Your task to perform on an android device: Open Chrome and go to settings Image 0: 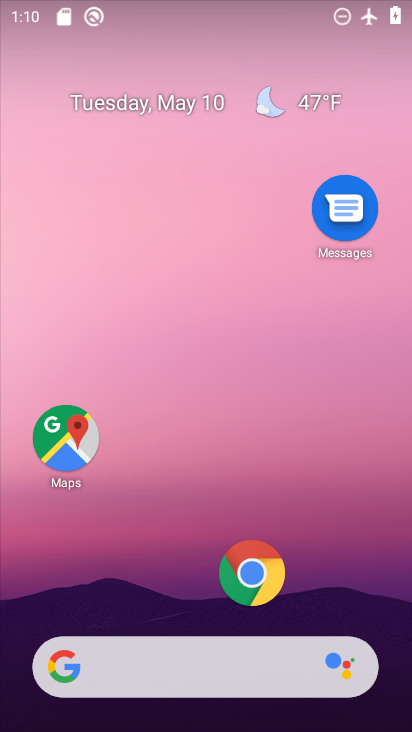
Step 0: click (226, 315)
Your task to perform on an android device: Open Chrome and go to settings Image 1: 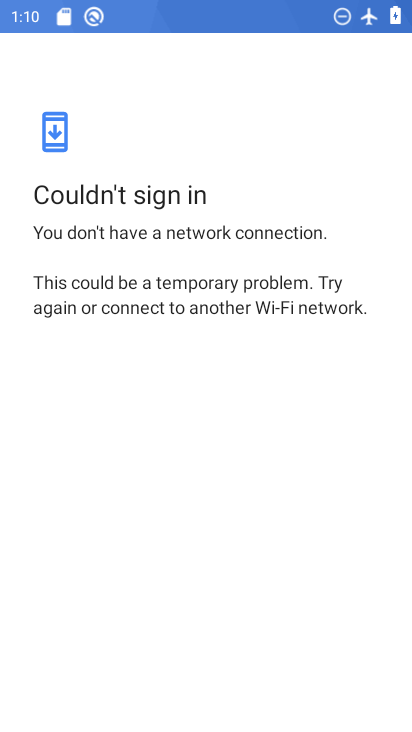
Step 1: press home button
Your task to perform on an android device: Open Chrome and go to settings Image 2: 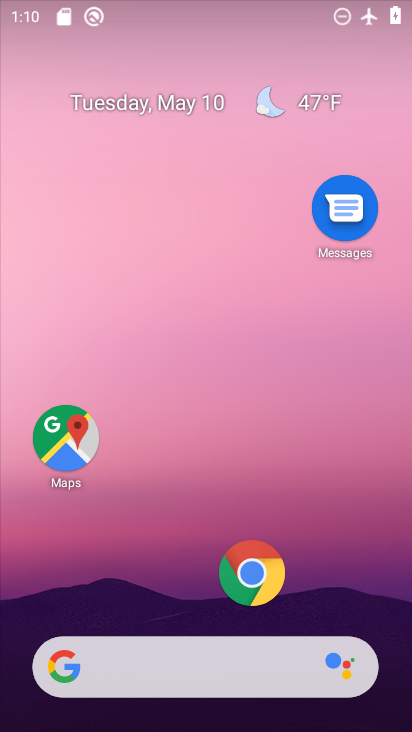
Step 2: drag from (186, 591) to (233, 72)
Your task to perform on an android device: Open Chrome and go to settings Image 3: 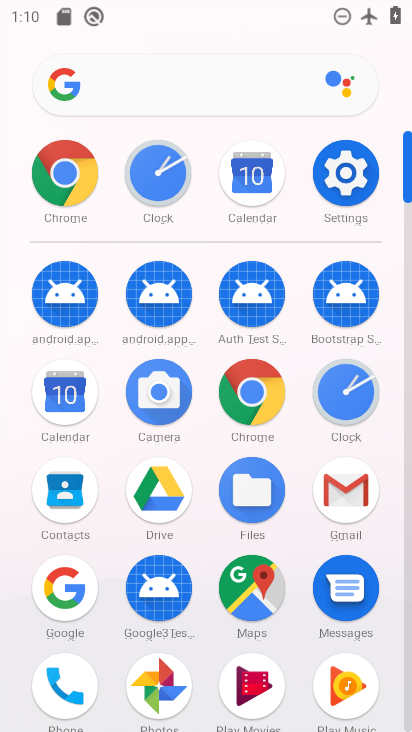
Step 3: click (255, 399)
Your task to perform on an android device: Open Chrome and go to settings Image 4: 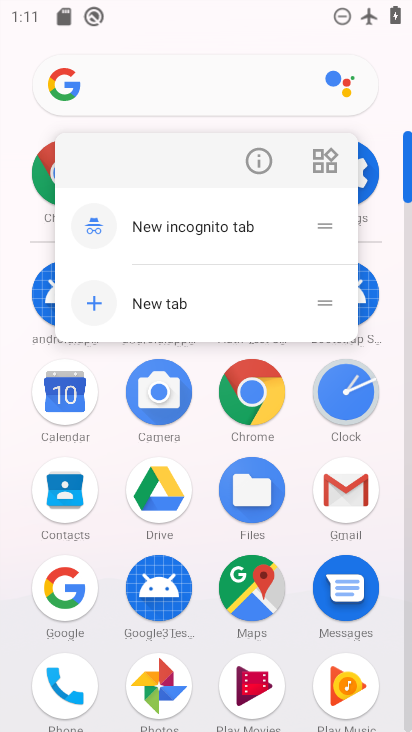
Step 4: click (265, 171)
Your task to perform on an android device: Open Chrome and go to settings Image 5: 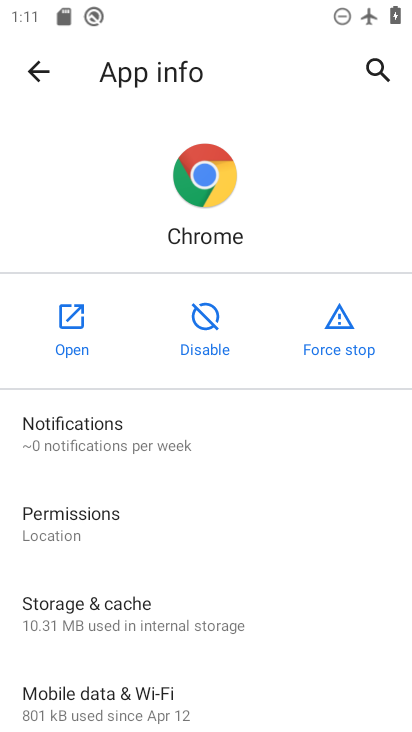
Step 5: click (68, 314)
Your task to perform on an android device: Open Chrome and go to settings Image 6: 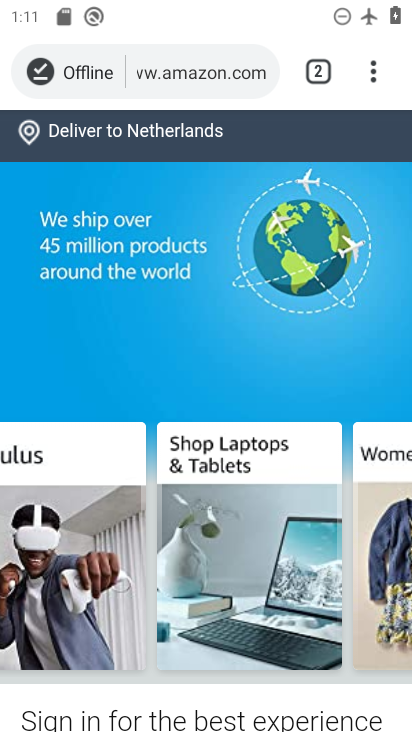
Step 6: task complete